Your task to perform on an android device: install app "McDonald's" Image 0: 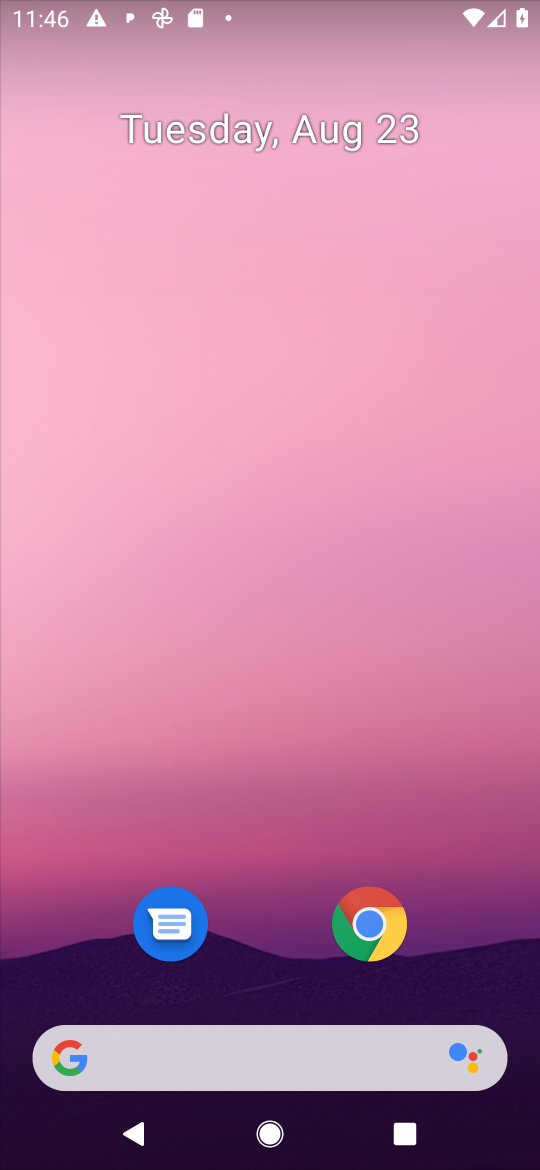
Step 0: press home button
Your task to perform on an android device: install app "McDonald's" Image 1: 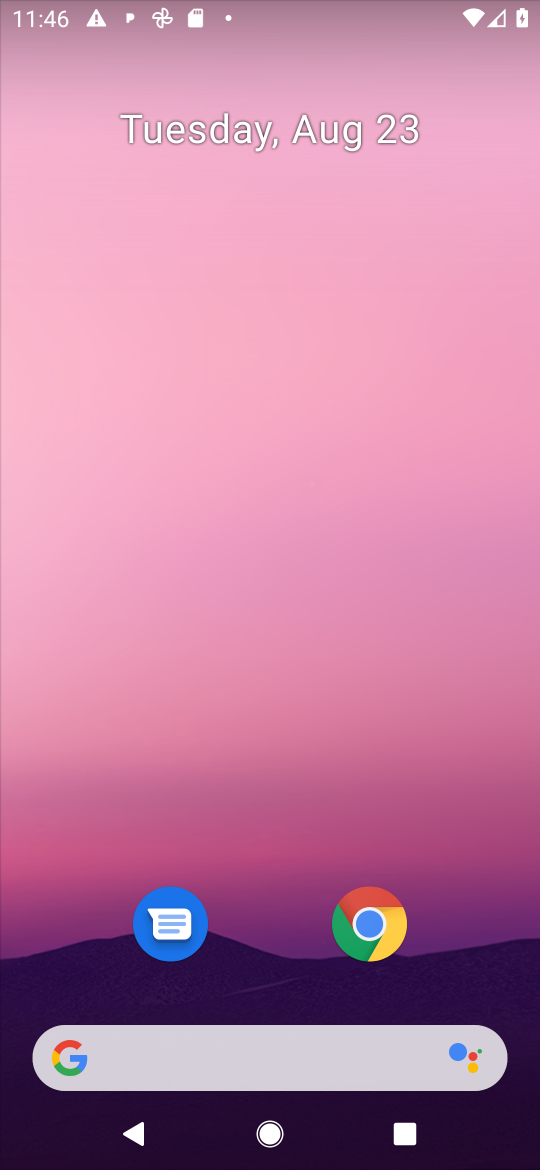
Step 1: drag from (469, 843) to (458, 141)
Your task to perform on an android device: install app "McDonald's" Image 2: 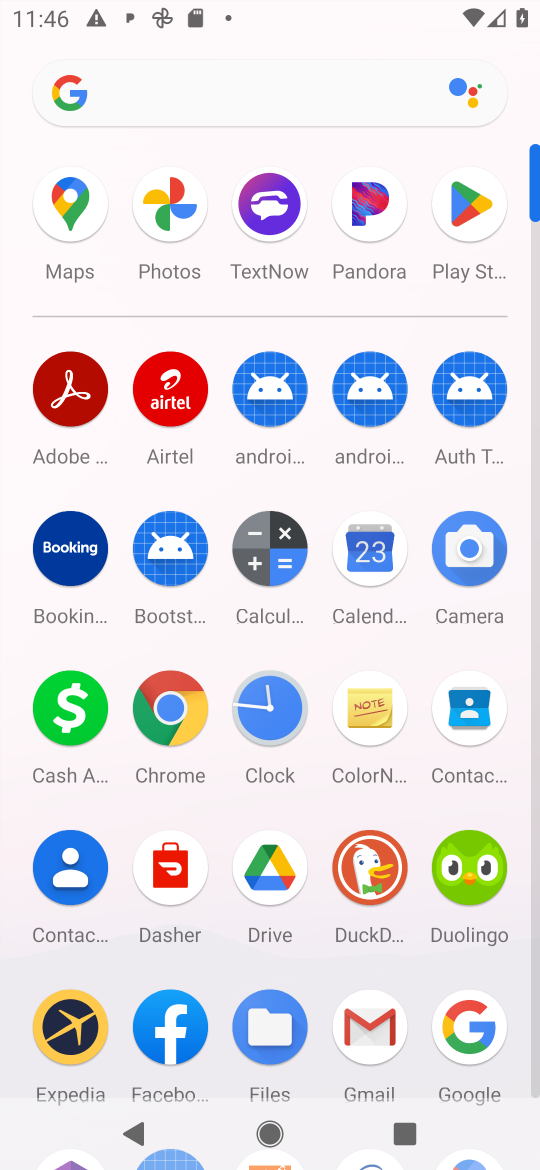
Step 2: click (466, 202)
Your task to perform on an android device: install app "McDonald's" Image 3: 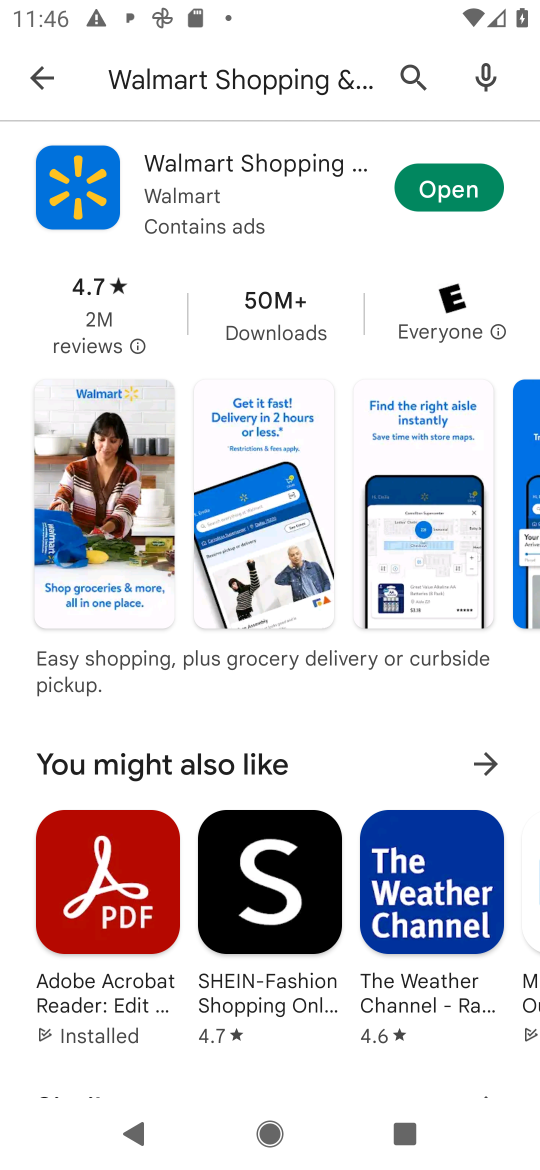
Step 3: press back button
Your task to perform on an android device: install app "McDonald's" Image 4: 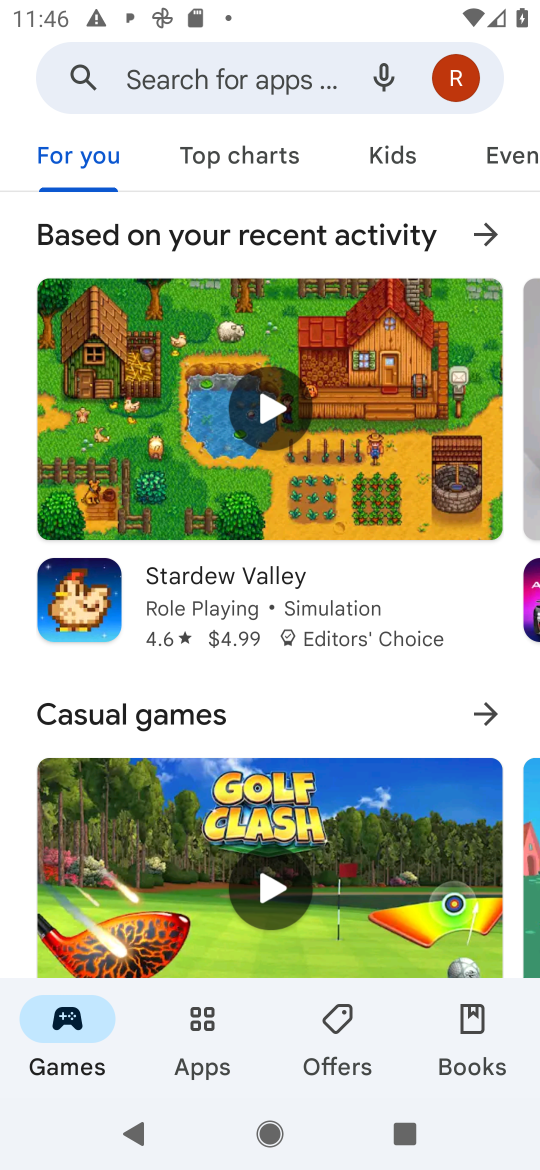
Step 4: click (265, 64)
Your task to perform on an android device: install app "McDonald's" Image 5: 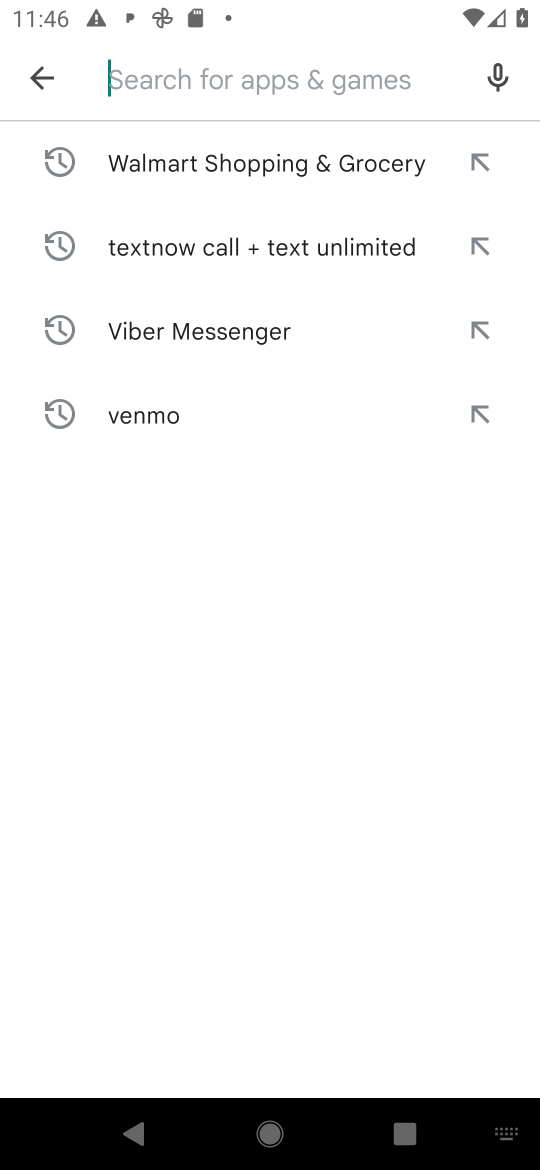
Step 5: press enter
Your task to perform on an android device: install app "McDonald's" Image 6: 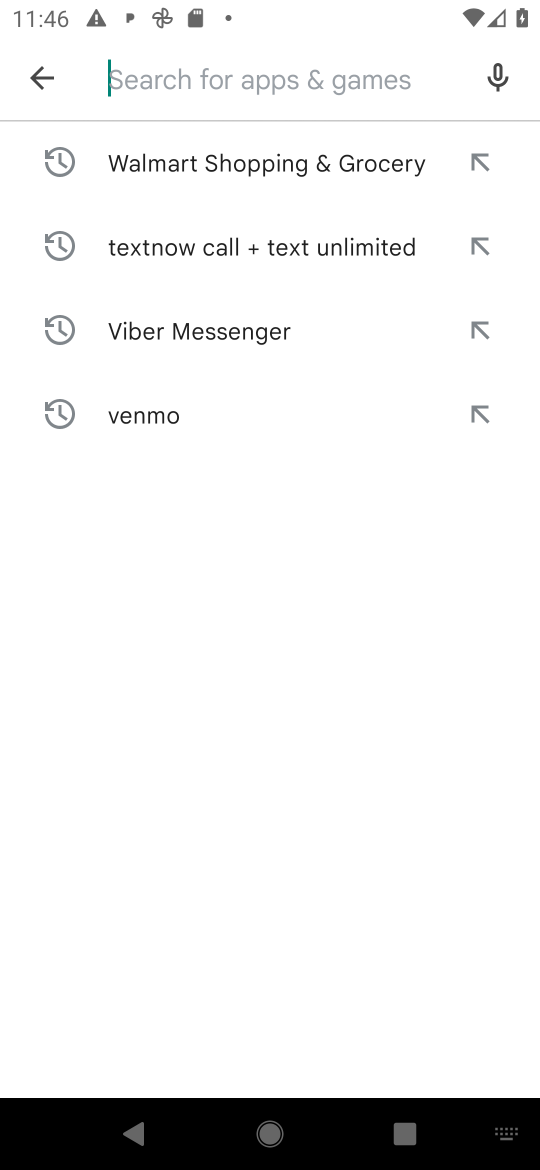
Step 6: type "mcdonalds"
Your task to perform on an android device: install app "McDonald's" Image 7: 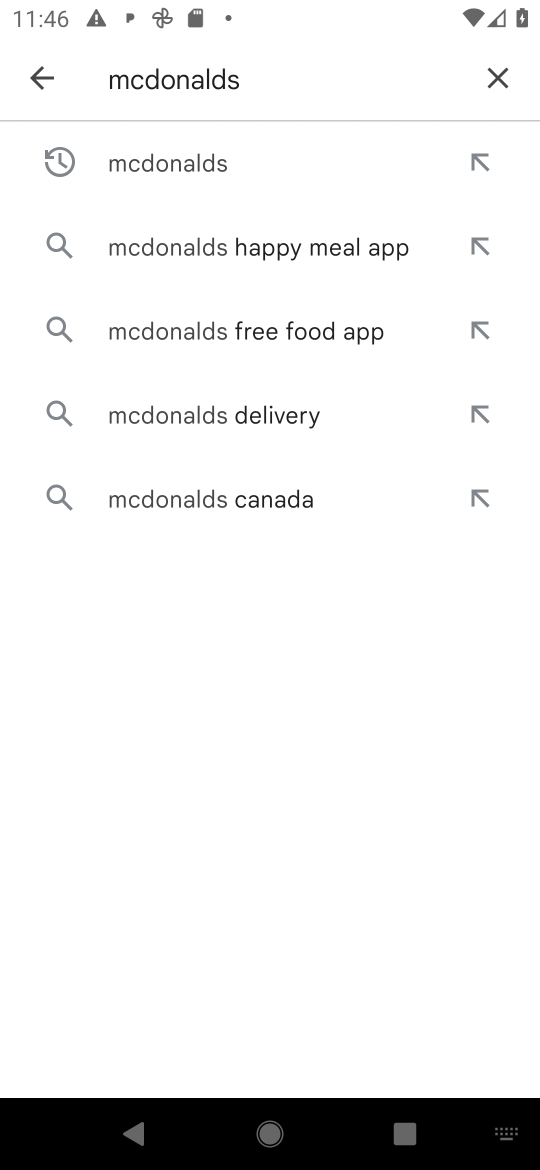
Step 7: click (232, 161)
Your task to perform on an android device: install app "McDonald's" Image 8: 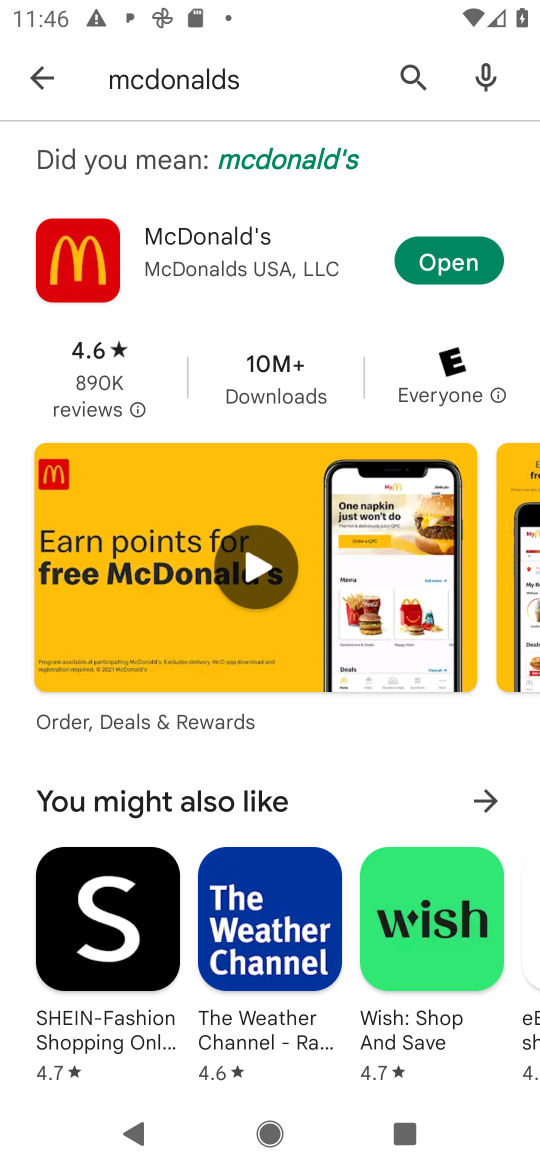
Step 8: task complete